Your task to perform on an android device: When is my next appointment? Image 0: 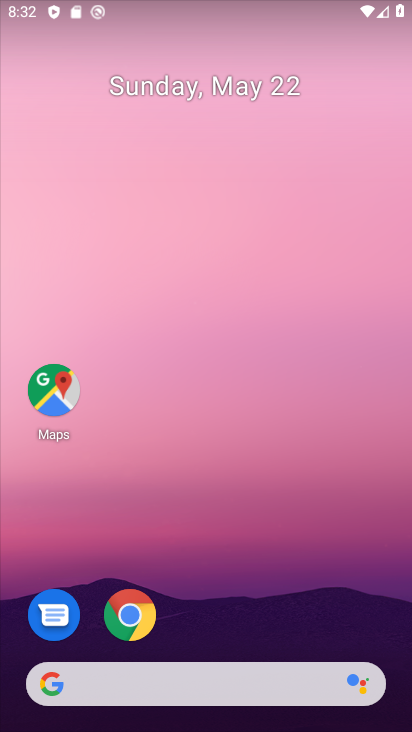
Step 0: drag from (258, 587) to (213, 188)
Your task to perform on an android device: When is my next appointment? Image 1: 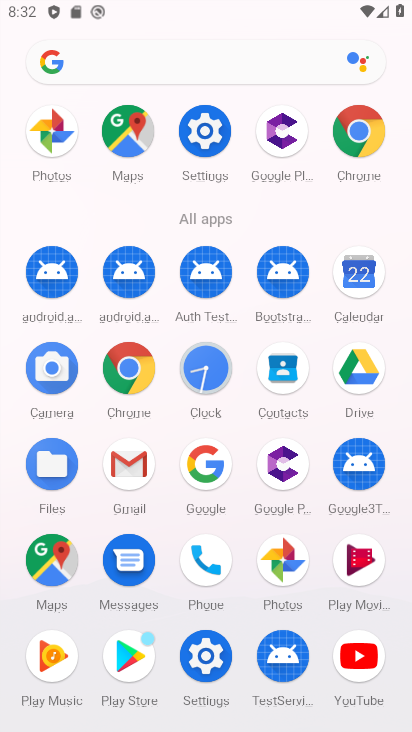
Step 1: click (354, 272)
Your task to perform on an android device: When is my next appointment? Image 2: 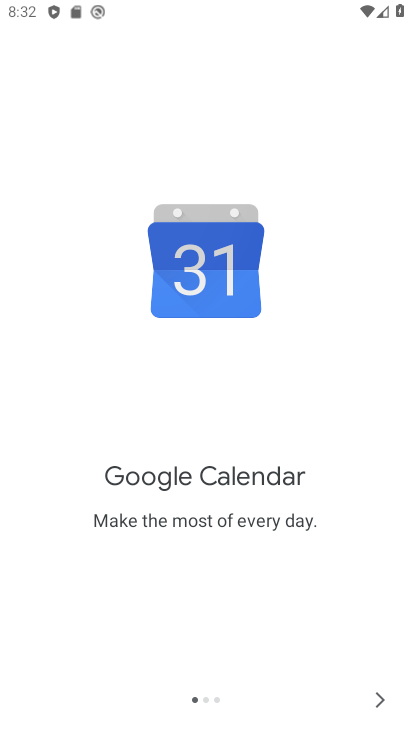
Step 2: click (372, 705)
Your task to perform on an android device: When is my next appointment? Image 3: 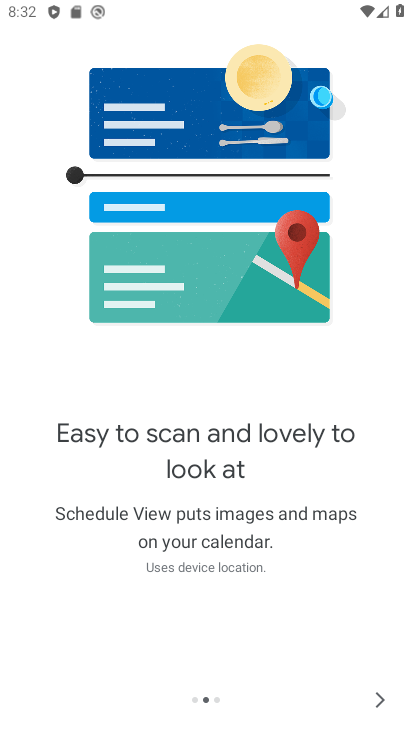
Step 3: click (372, 705)
Your task to perform on an android device: When is my next appointment? Image 4: 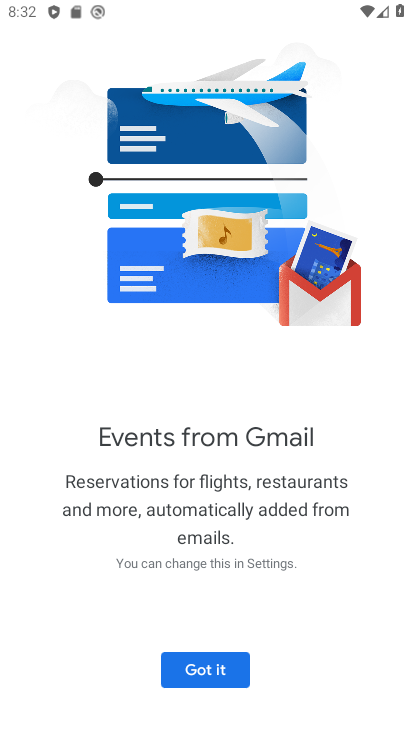
Step 4: click (174, 677)
Your task to perform on an android device: When is my next appointment? Image 5: 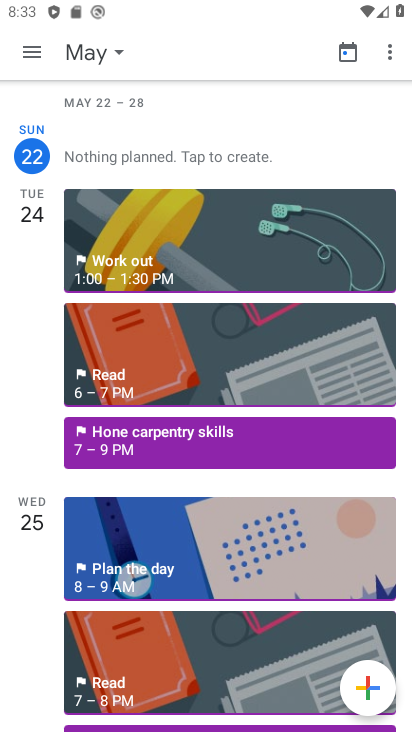
Step 5: task complete